Your task to perform on an android device: turn pop-ups off in chrome Image 0: 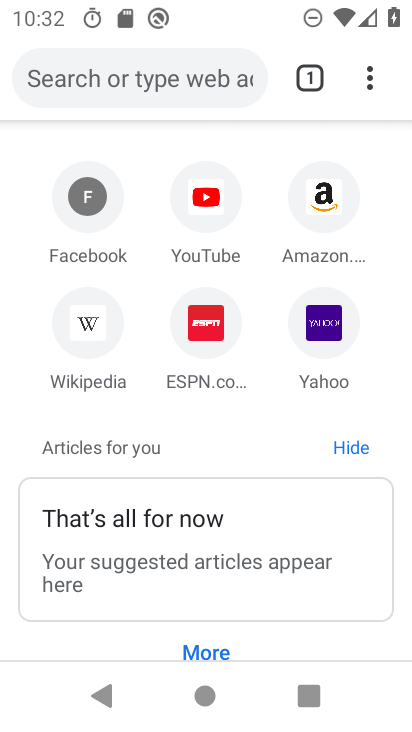
Step 0: press home button
Your task to perform on an android device: turn pop-ups off in chrome Image 1: 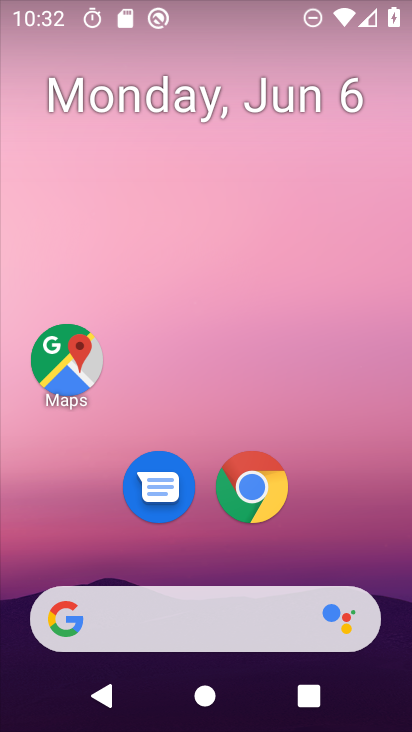
Step 1: drag from (394, 648) to (254, 11)
Your task to perform on an android device: turn pop-ups off in chrome Image 2: 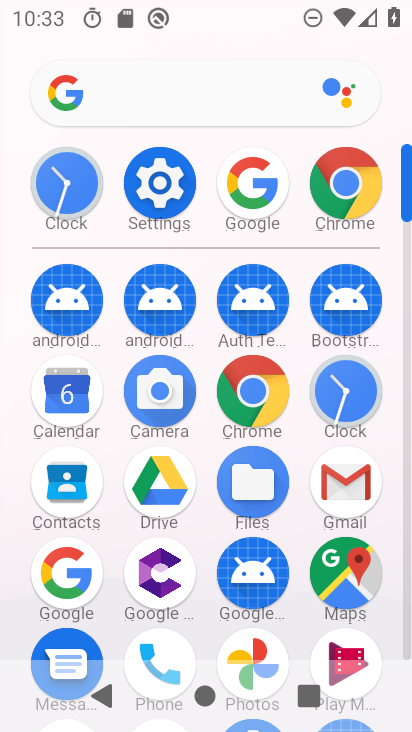
Step 2: click (338, 172)
Your task to perform on an android device: turn pop-ups off in chrome Image 3: 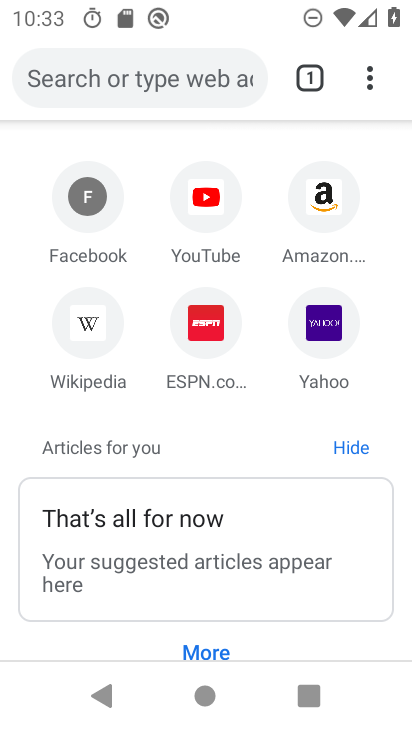
Step 3: click (377, 73)
Your task to perform on an android device: turn pop-ups off in chrome Image 4: 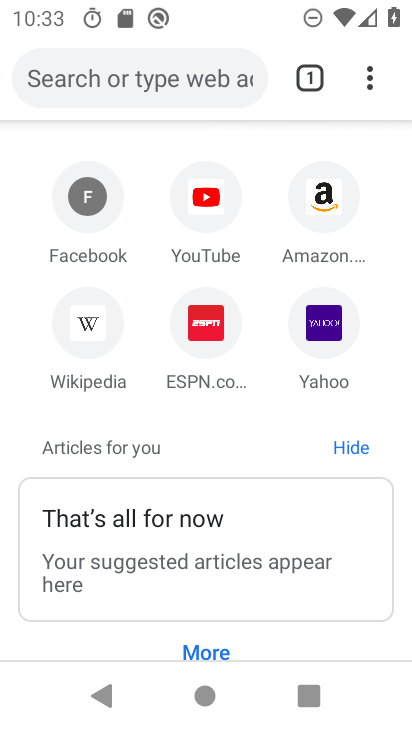
Step 4: click (369, 70)
Your task to perform on an android device: turn pop-ups off in chrome Image 5: 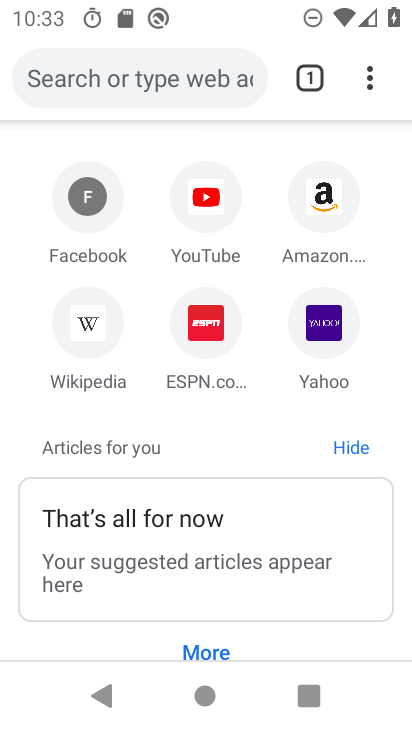
Step 5: click (369, 70)
Your task to perform on an android device: turn pop-ups off in chrome Image 6: 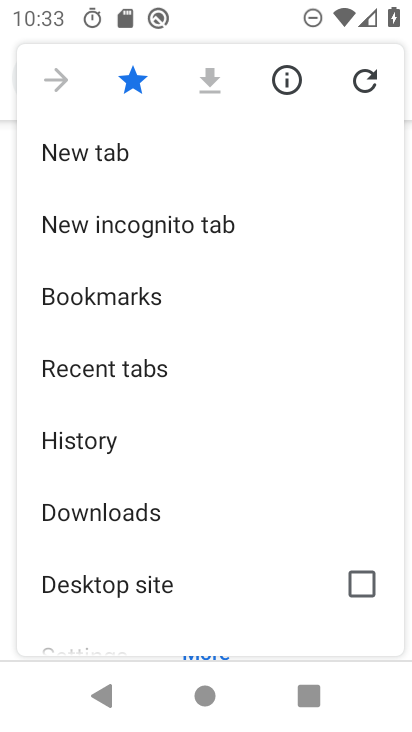
Step 6: drag from (171, 562) to (175, 286)
Your task to perform on an android device: turn pop-ups off in chrome Image 7: 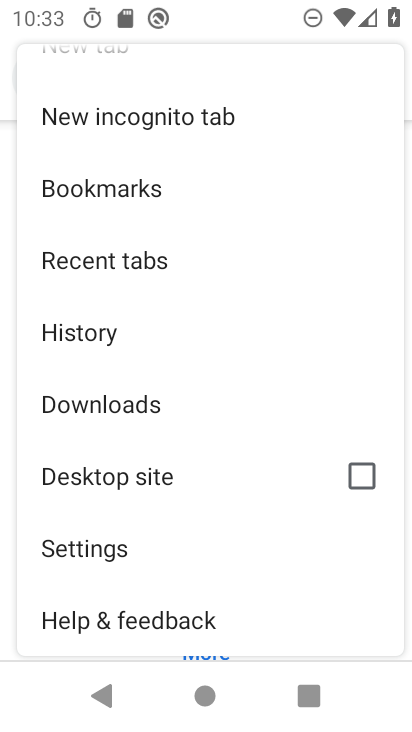
Step 7: click (135, 560)
Your task to perform on an android device: turn pop-ups off in chrome Image 8: 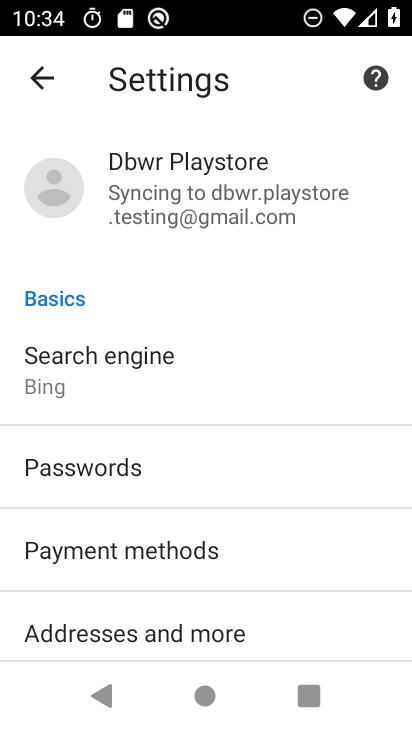
Step 8: drag from (154, 612) to (197, 111)
Your task to perform on an android device: turn pop-ups off in chrome Image 9: 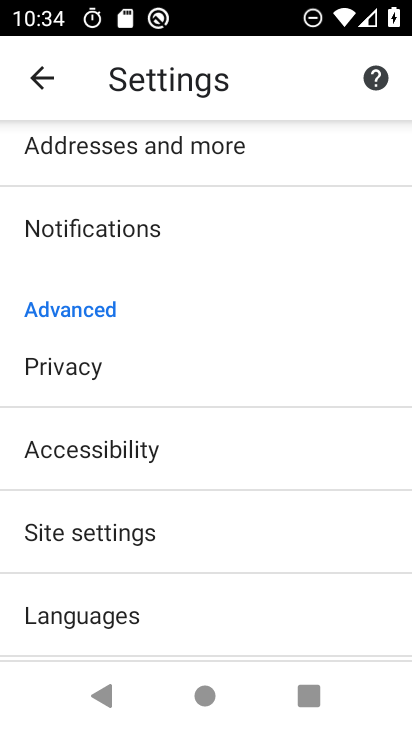
Step 9: click (200, 509)
Your task to perform on an android device: turn pop-ups off in chrome Image 10: 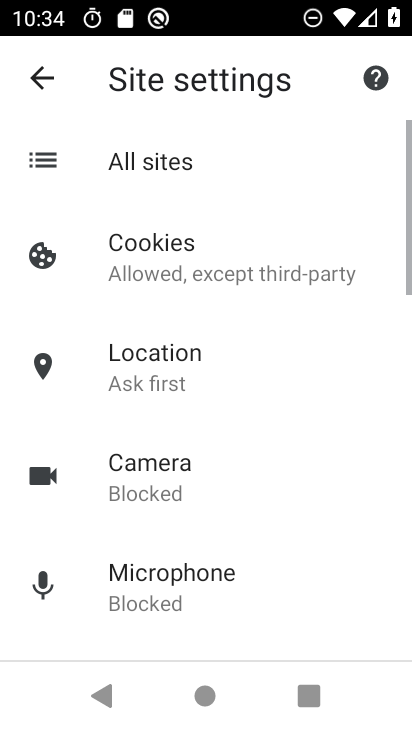
Step 10: drag from (218, 596) to (245, 114)
Your task to perform on an android device: turn pop-ups off in chrome Image 11: 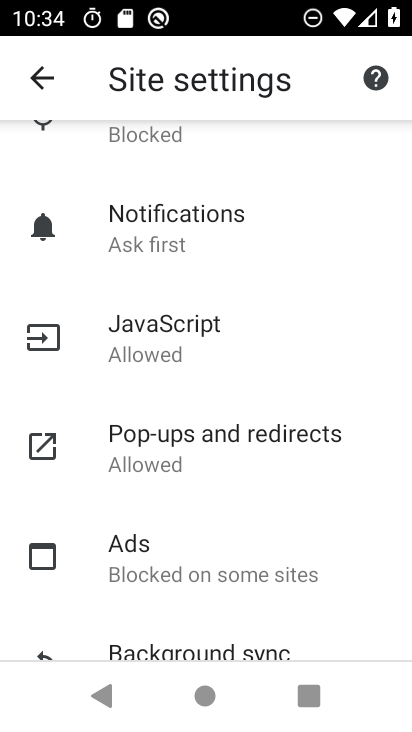
Step 11: click (199, 454)
Your task to perform on an android device: turn pop-ups off in chrome Image 12: 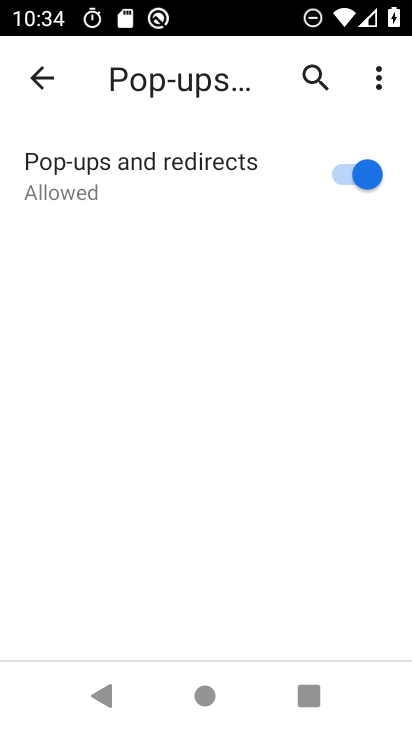
Step 12: click (347, 162)
Your task to perform on an android device: turn pop-ups off in chrome Image 13: 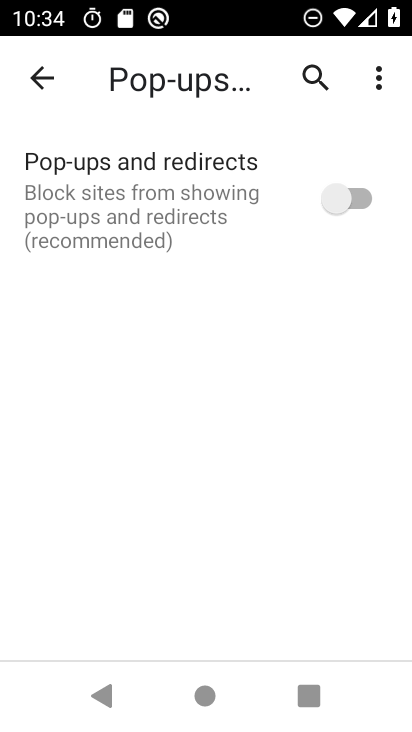
Step 13: task complete